Your task to perform on an android device: When is my next appointment? Image 0: 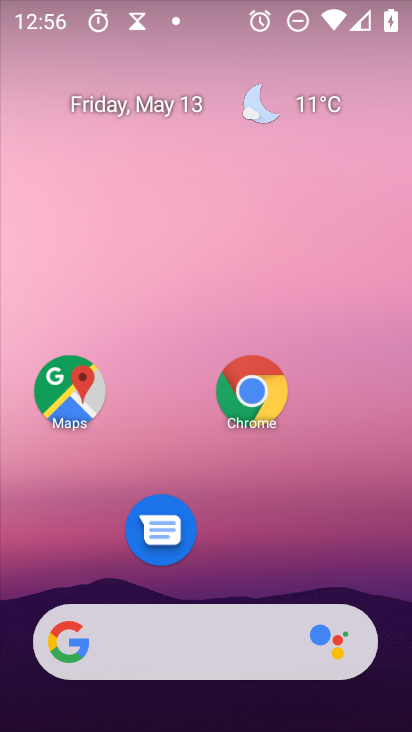
Step 0: press home button
Your task to perform on an android device: When is my next appointment? Image 1: 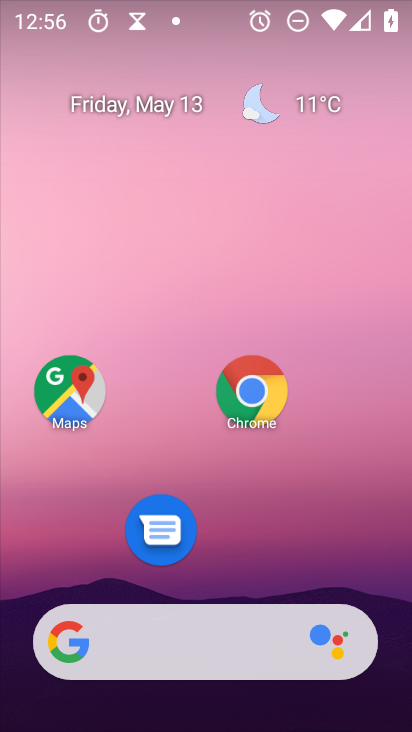
Step 1: drag from (166, 657) to (296, 108)
Your task to perform on an android device: When is my next appointment? Image 2: 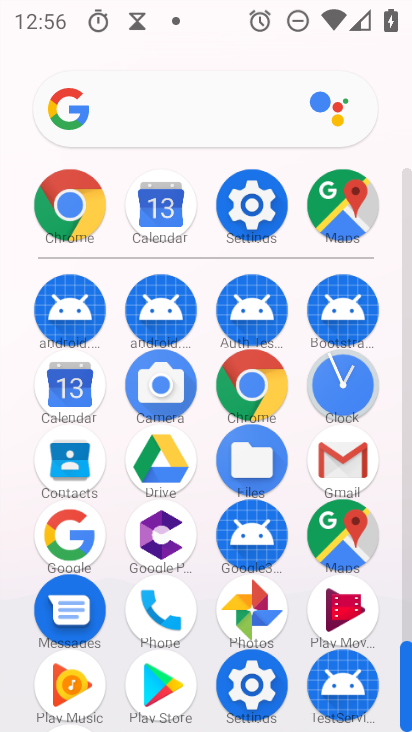
Step 2: click (62, 407)
Your task to perform on an android device: When is my next appointment? Image 3: 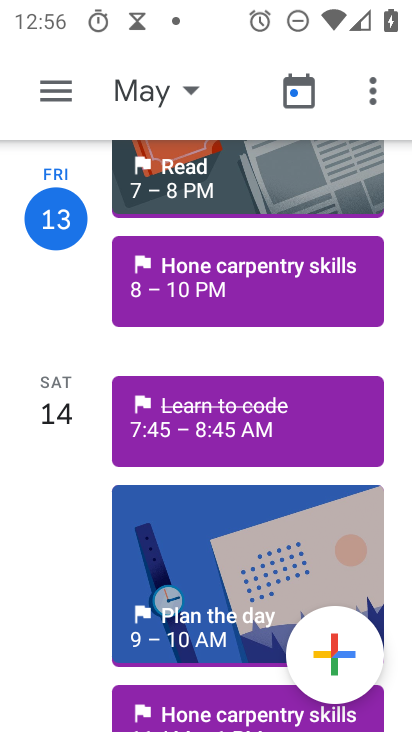
Step 3: task complete